Your task to perform on an android device: turn off priority inbox in the gmail app Image 0: 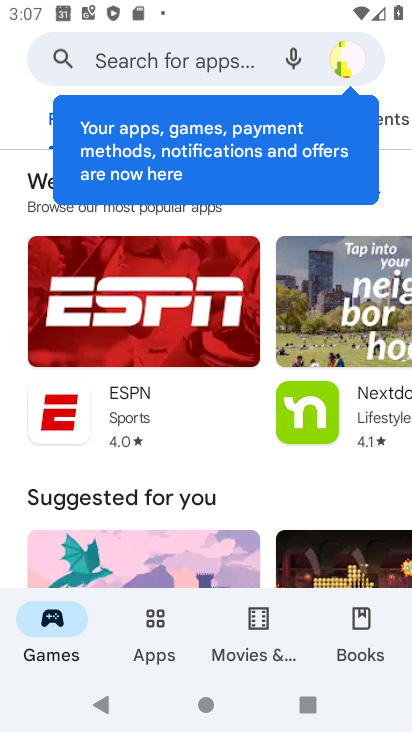
Step 0: press home button
Your task to perform on an android device: turn off priority inbox in the gmail app Image 1: 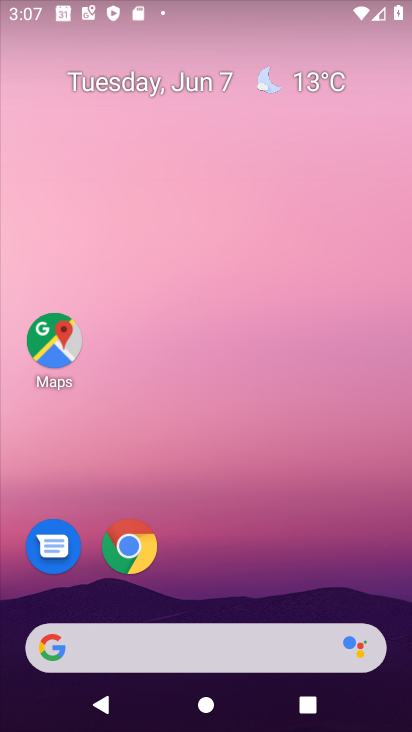
Step 1: drag from (70, 561) to (365, 134)
Your task to perform on an android device: turn off priority inbox in the gmail app Image 2: 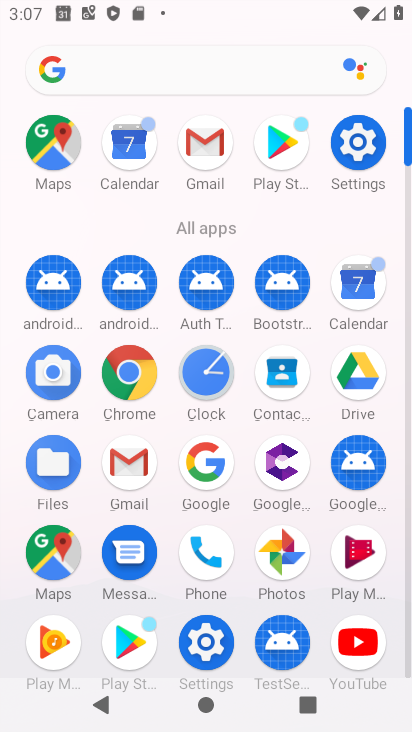
Step 2: click (209, 153)
Your task to perform on an android device: turn off priority inbox in the gmail app Image 3: 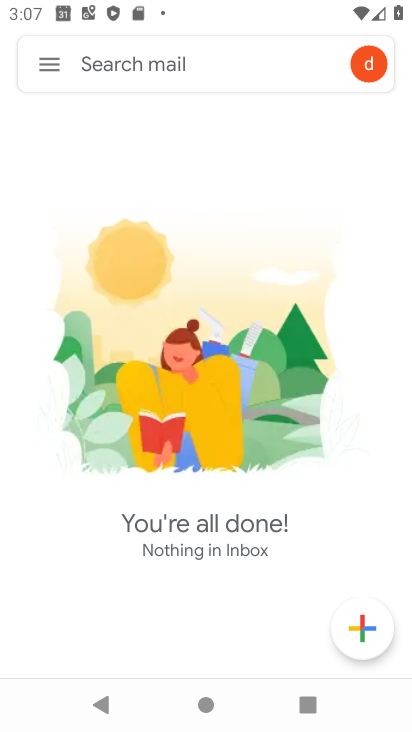
Step 3: click (34, 66)
Your task to perform on an android device: turn off priority inbox in the gmail app Image 4: 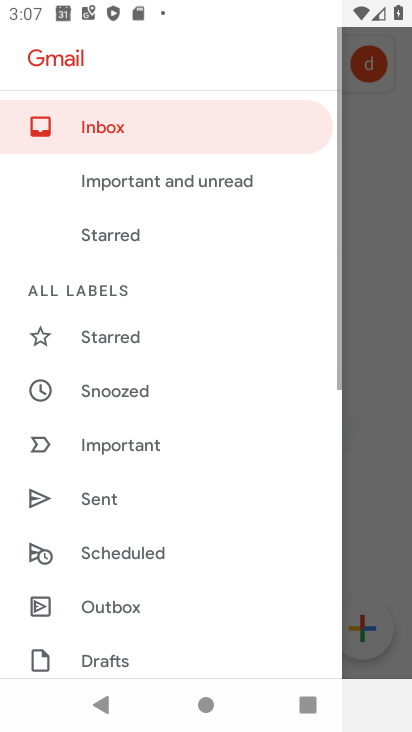
Step 4: drag from (110, 430) to (273, 114)
Your task to perform on an android device: turn off priority inbox in the gmail app Image 5: 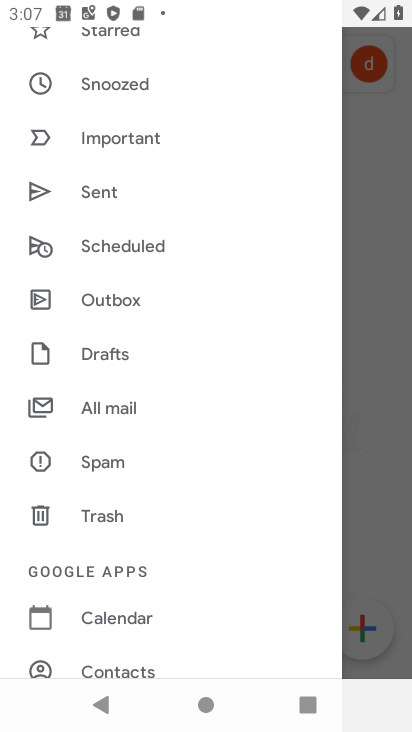
Step 5: drag from (8, 581) to (295, 93)
Your task to perform on an android device: turn off priority inbox in the gmail app Image 6: 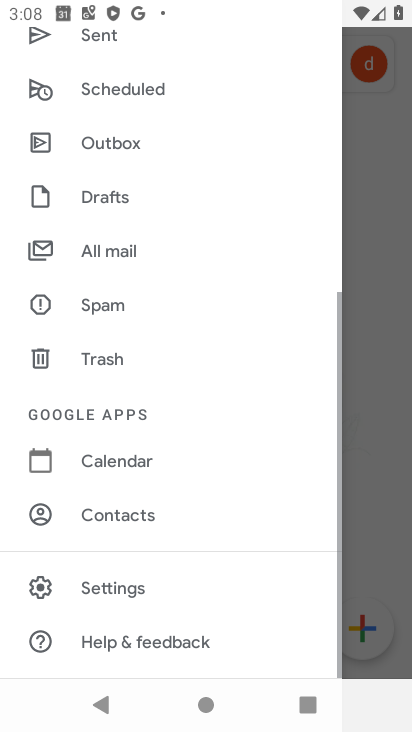
Step 6: click (161, 589)
Your task to perform on an android device: turn off priority inbox in the gmail app Image 7: 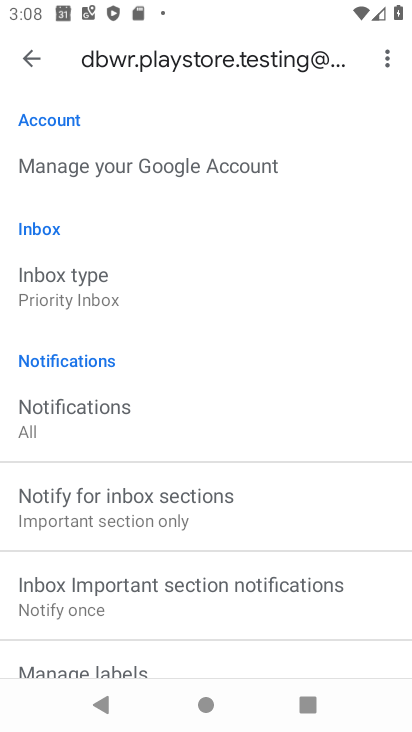
Step 7: drag from (81, 512) to (262, 283)
Your task to perform on an android device: turn off priority inbox in the gmail app Image 8: 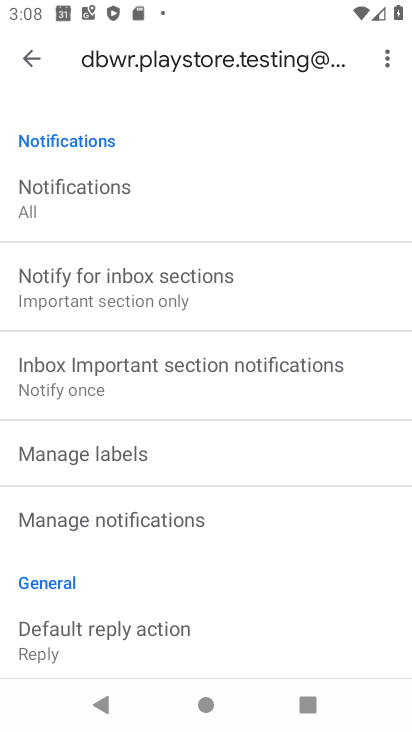
Step 8: drag from (120, 159) to (88, 463)
Your task to perform on an android device: turn off priority inbox in the gmail app Image 9: 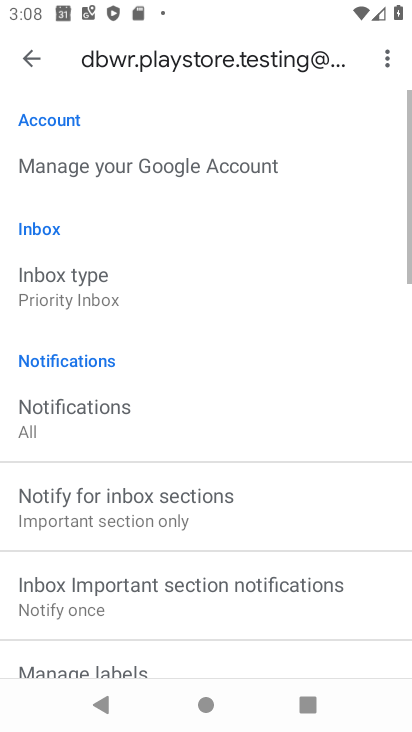
Step 9: click (69, 294)
Your task to perform on an android device: turn off priority inbox in the gmail app Image 10: 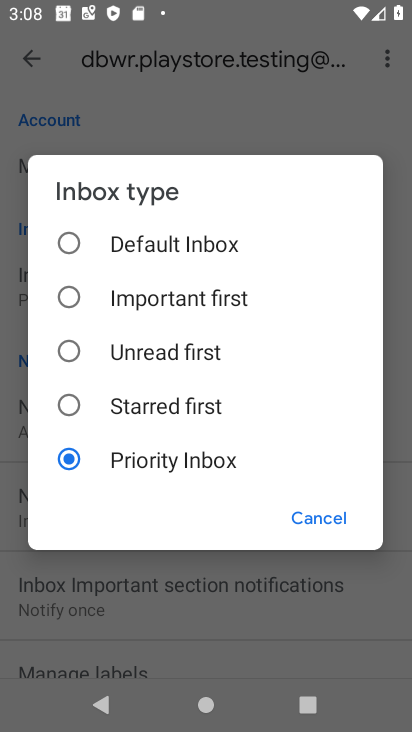
Step 10: click (144, 294)
Your task to perform on an android device: turn off priority inbox in the gmail app Image 11: 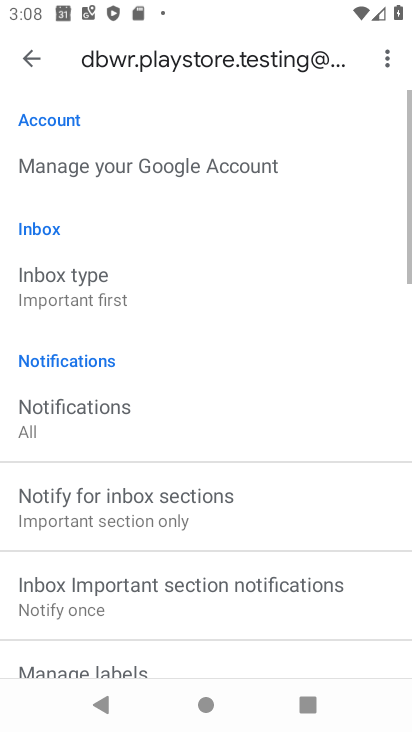
Step 11: task complete